Your task to perform on an android device: change the clock display to digital Image 0: 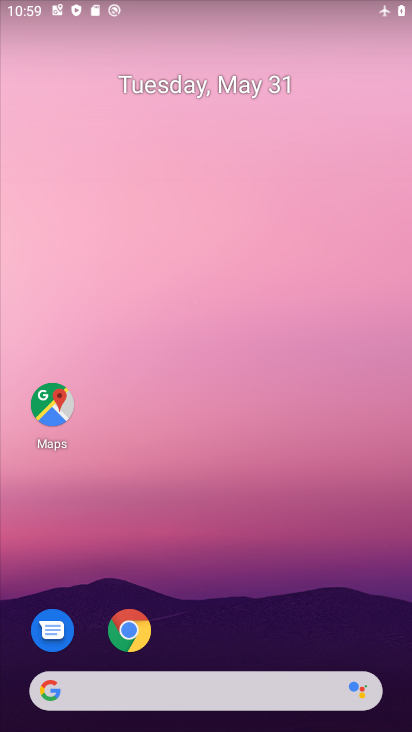
Step 0: drag from (229, 617) to (203, 130)
Your task to perform on an android device: change the clock display to digital Image 1: 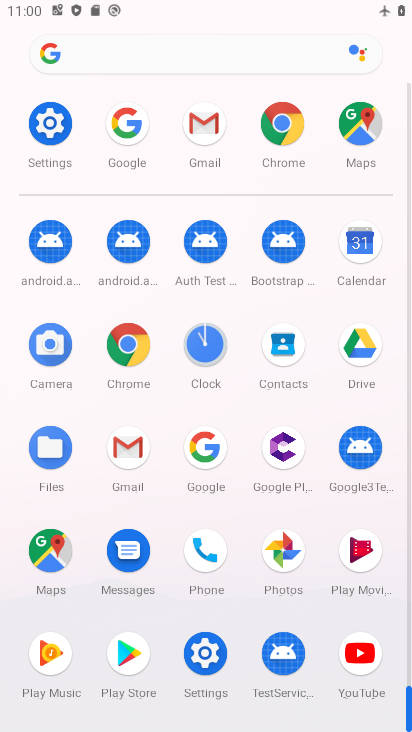
Step 1: click (207, 356)
Your task to perform on an android device: change the clock display to digital Image 2: 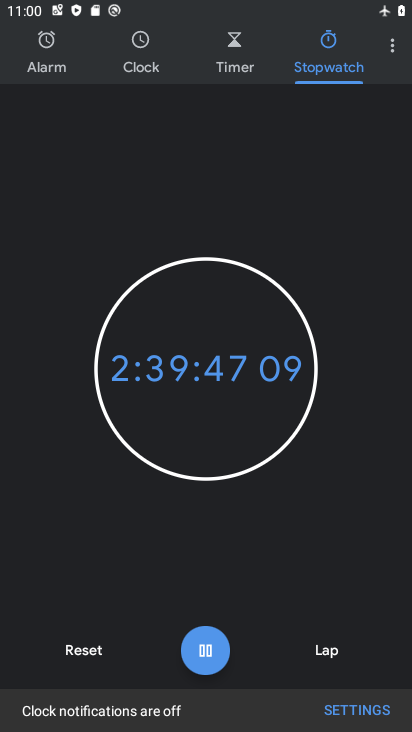
Step 2: click (392, 52)
Your task to perform on an android device: change the clock display to digital Image 3: 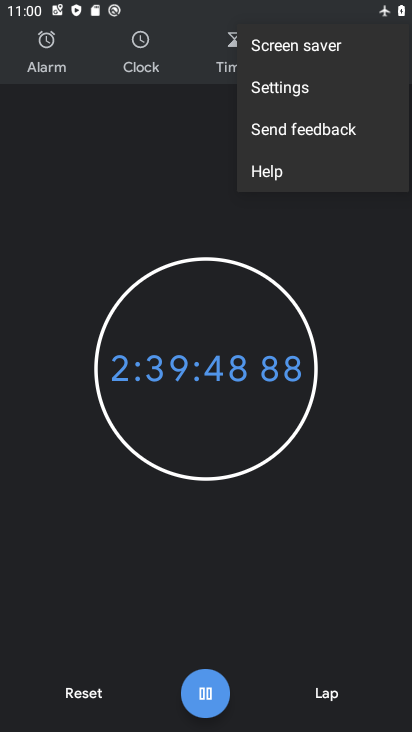
Step 3: click (301, 86)
Your task to perform on an android device: change the clock display to digital Image 4: 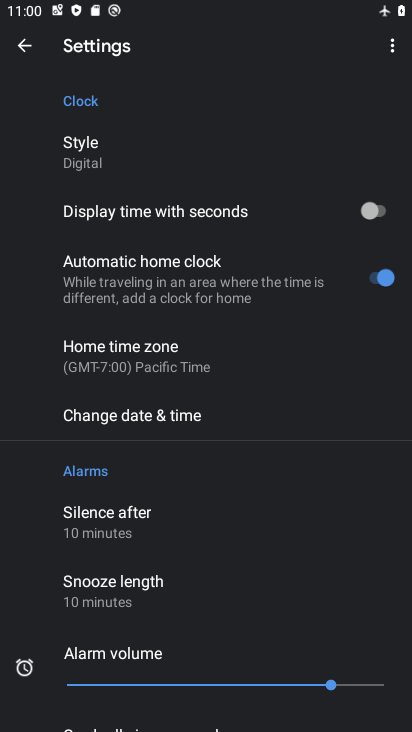
Step 4: task complete